Your task to perform on an android device: Open the stopwatch Image 0: 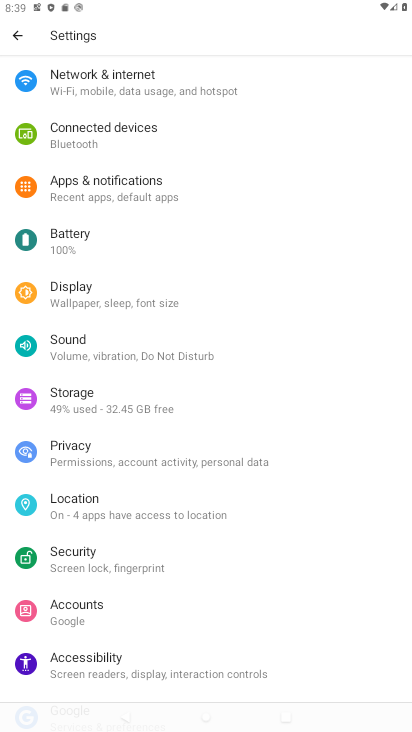
Step 0: press back button
Your task to perform on an android device: Open the stopwatch Image 1: 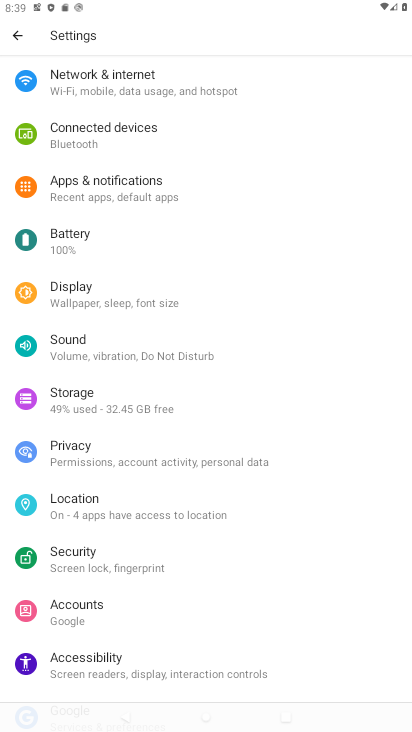
Step 1: press back button
Your task to perform on an android device: Open the stopwatch Image 2: 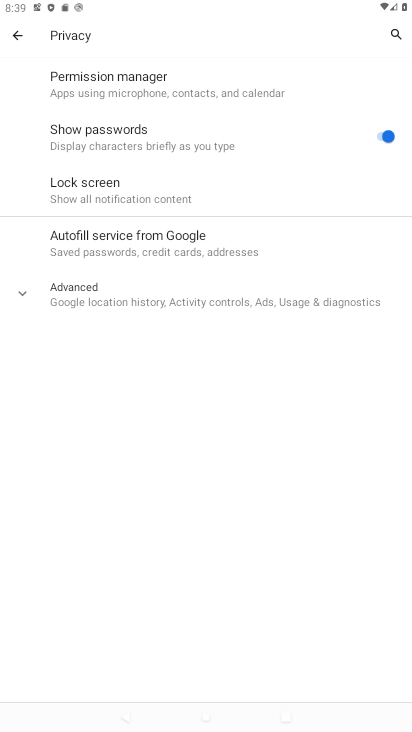
Step 2: press back button
Your task to perform on an android device: Open the stopwatch Image 3: 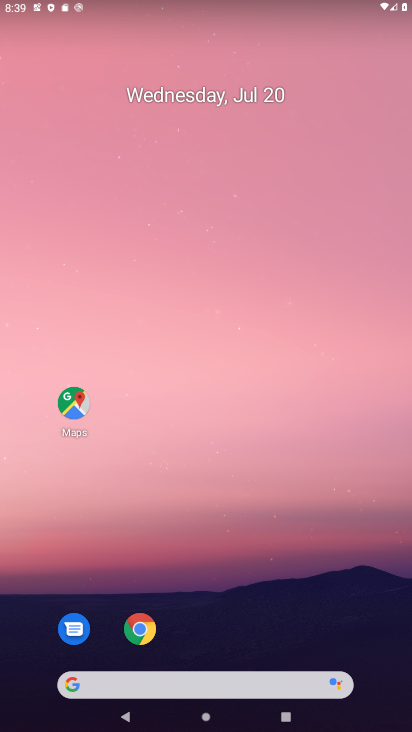
Step 3: drag from (242, 625) to (233, 162)
Your task to perform on an android device: Open the stopwatch Image 4: 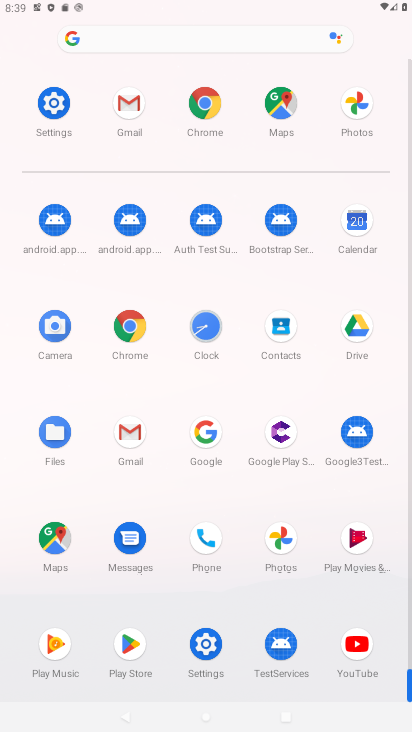
Step 4: click (212, 321)
Your task to perform on an android device: Open the stopwatch Image 5: 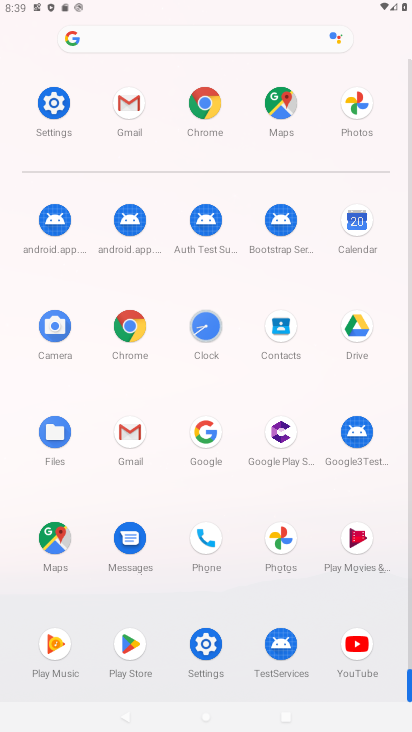
Step 5: click (212, 321)
Your task to perform on an android device: Open the stopwatch Image 6: 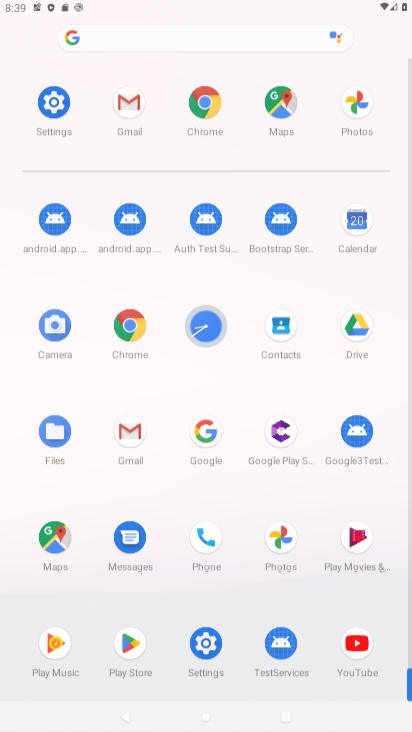
Step 6: click (212, 321)
Your task to perform on an android device: Open the stopwatch Image 7: 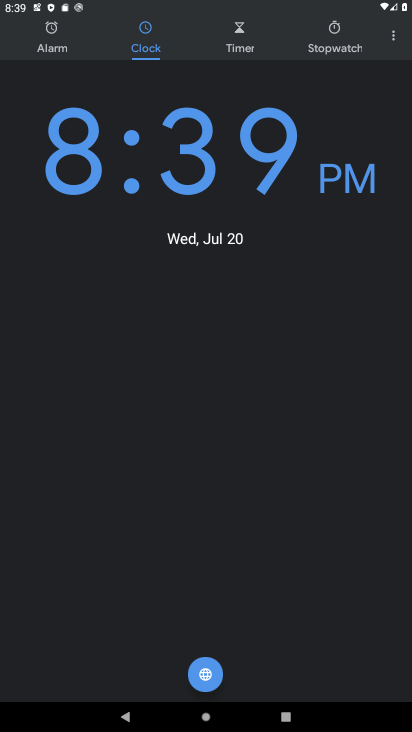
Step 7: click (344, 41)
Your task to perform on an android device: Open the stopwatch Image 8: 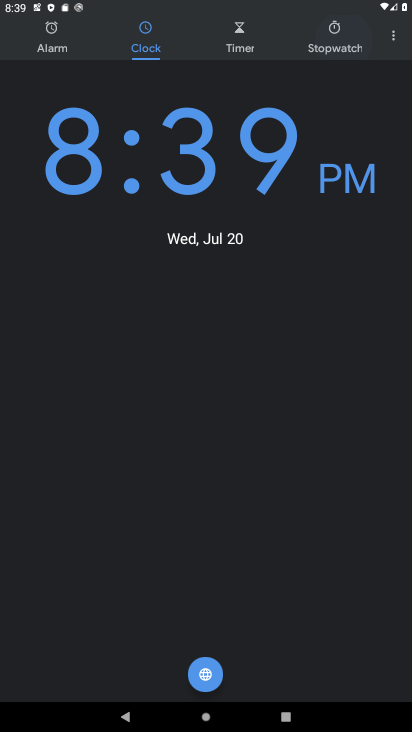
Step 8: click (338, 35)
Your task to perform on an android device: Open the stopwatch Image 9: 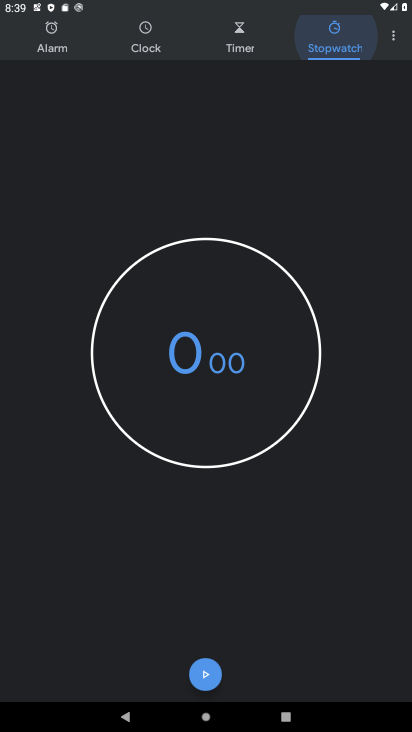
Step 9: click (337, 33)
Your task to perform on an android device: Open the stopwatch Image 10: 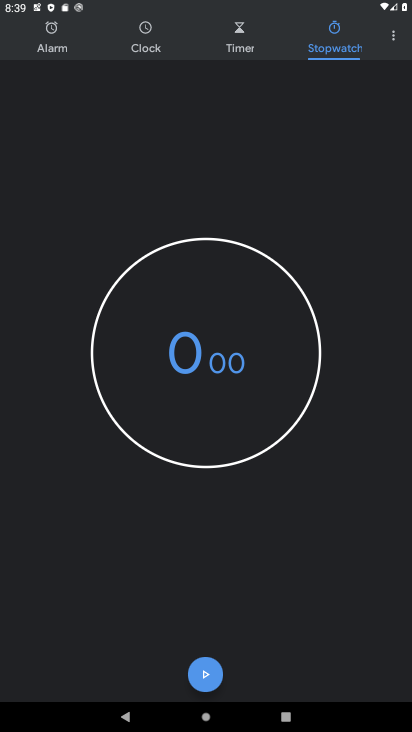
Step 10: task complete